Your task to perform on an android device: When is my next meeting? Image 0: 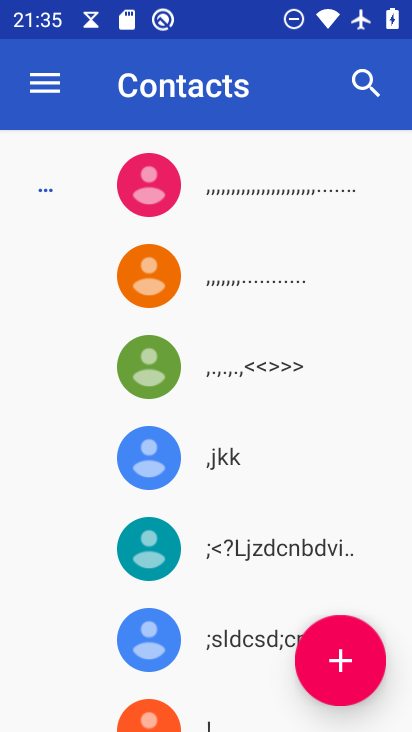
Step 0: press home button
Your task to perform on an android device: When is my next meeting? Image 1: 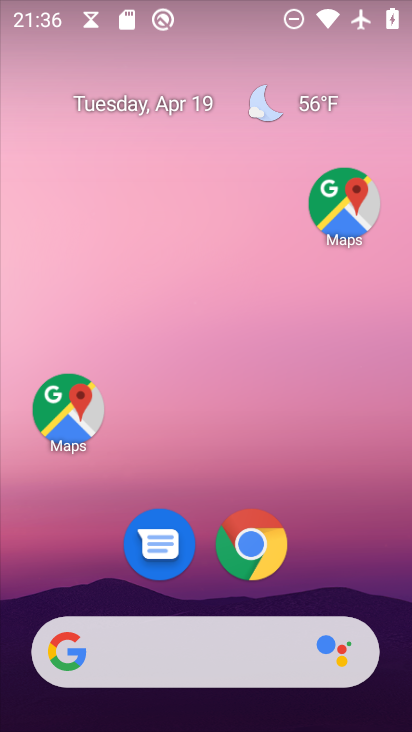
Step 1: drag from (169, 646) to (280, 86)
Your task to perform on an android device: When is my next meeting? Image 2: 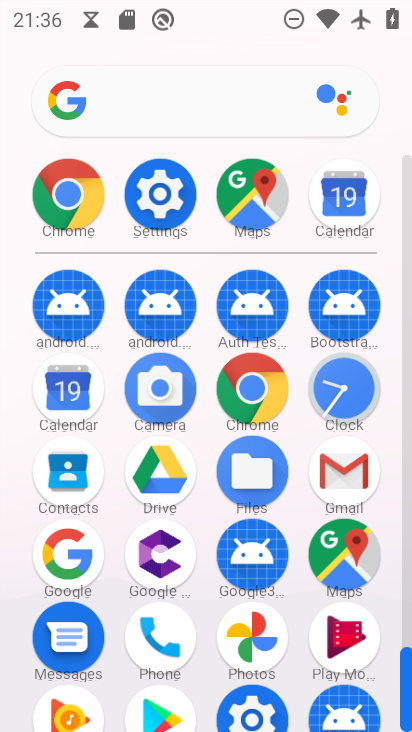
Step 2: click (76, 395)
Your task to perform on an android device: When is my next meeting? Image 3: 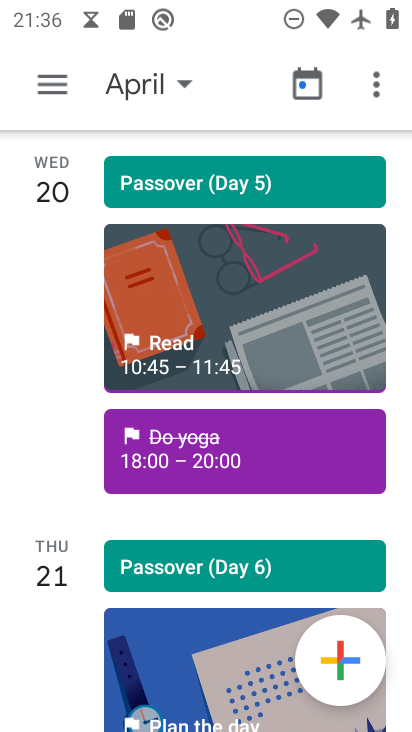
Step 3: click (191, 456)
Your task to perform on an android device: When is my next meeting? Image 4: 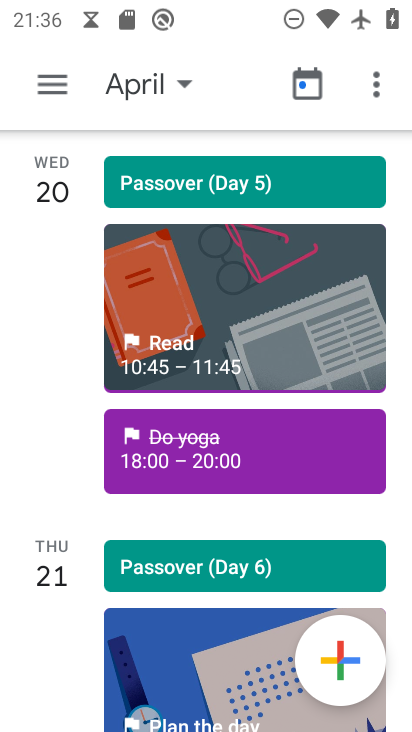
Step 4: click (226, 462)
Your task to perform on an android device: When is my next meeting? Image 5: 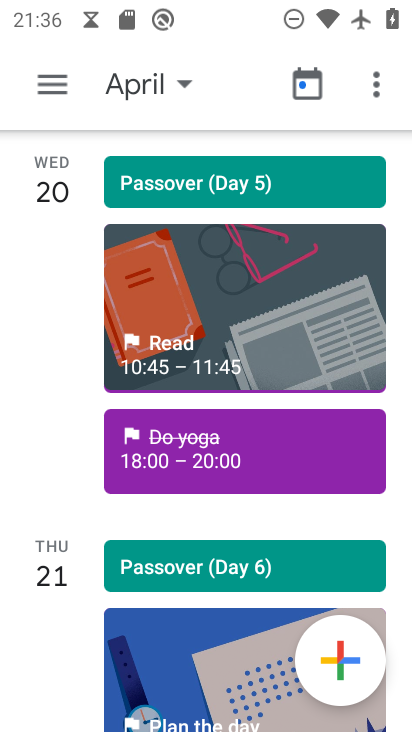
Step 5: click (53, 83)
Your task to perform on an android device: When is my next meeting? Image 6: 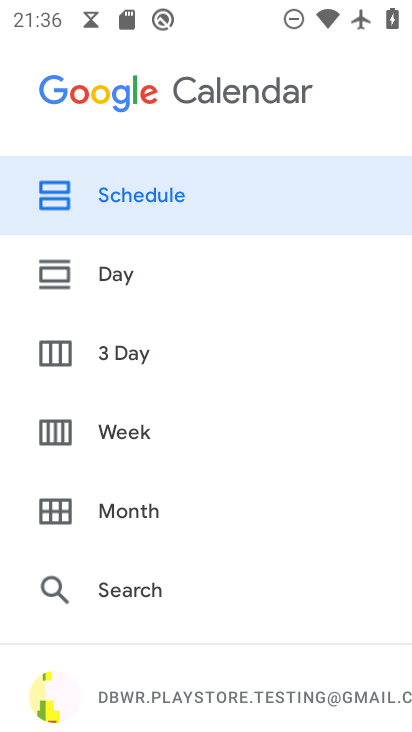
Step 6: click (108, 265)
Your task to perform on an android device: When is my next meeting? Image 7: 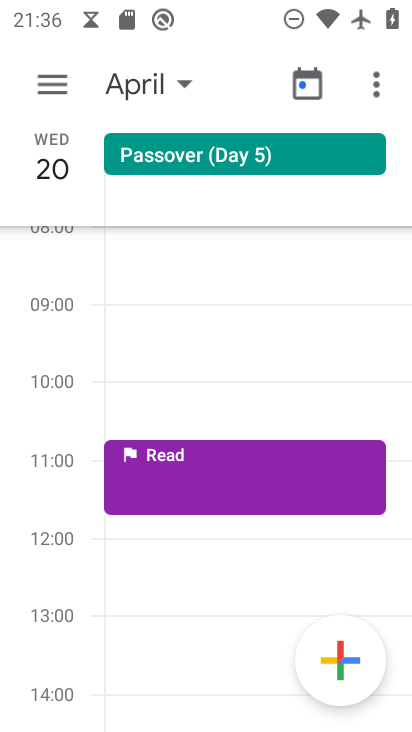
Step 7: click (163, 470)
Your task to perform on an android device: When is my next meeting? Image 8: 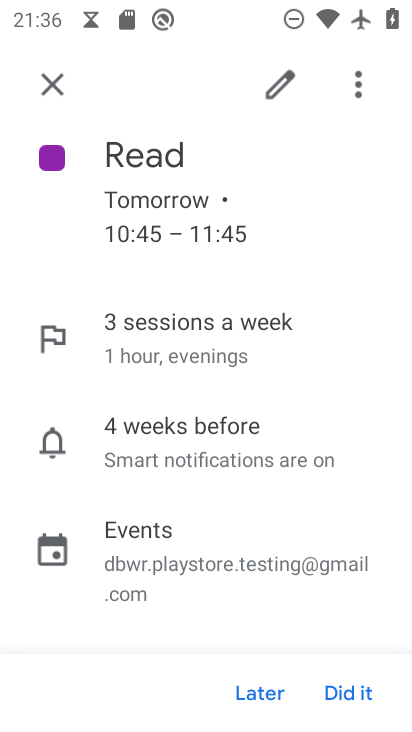
Step 8: task complete